Your task to perform on an android device: turn on improve location accuracy Image 0: 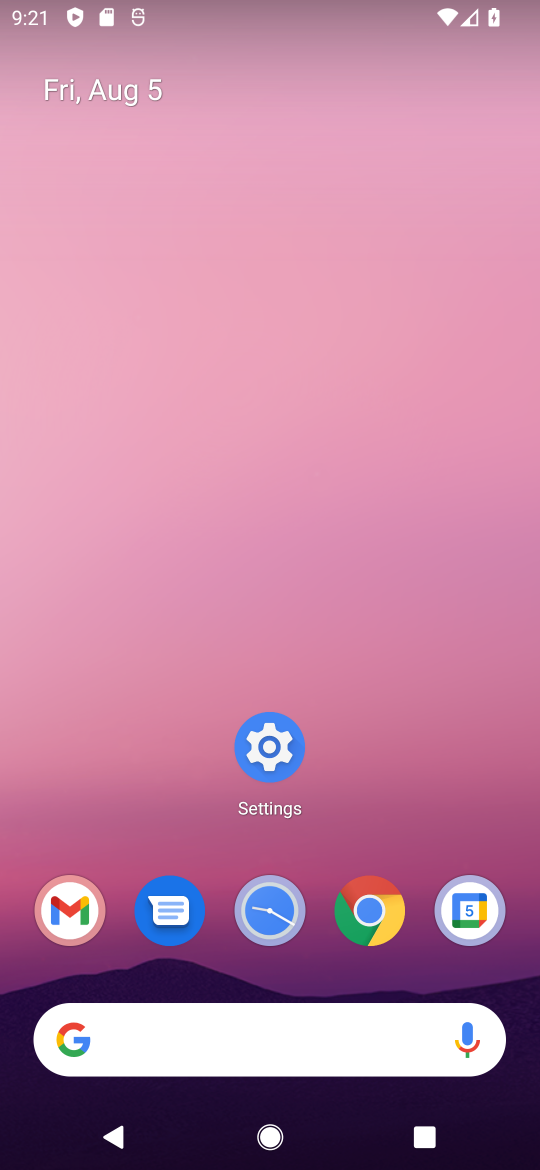
Step 0: click (265, 745)
Your task to perform on an android device: turn on improve location accuracy Image 1: 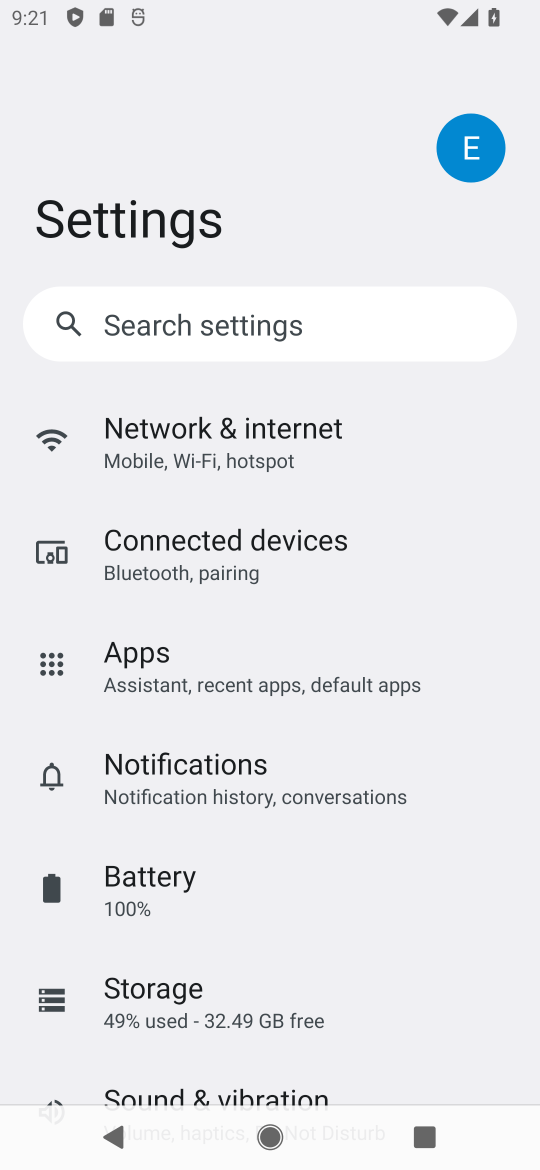
Step 1: drag from (302, 870) to (437, 237)
Your task to perform on an android device: turn on improve location accuracy Image 2: 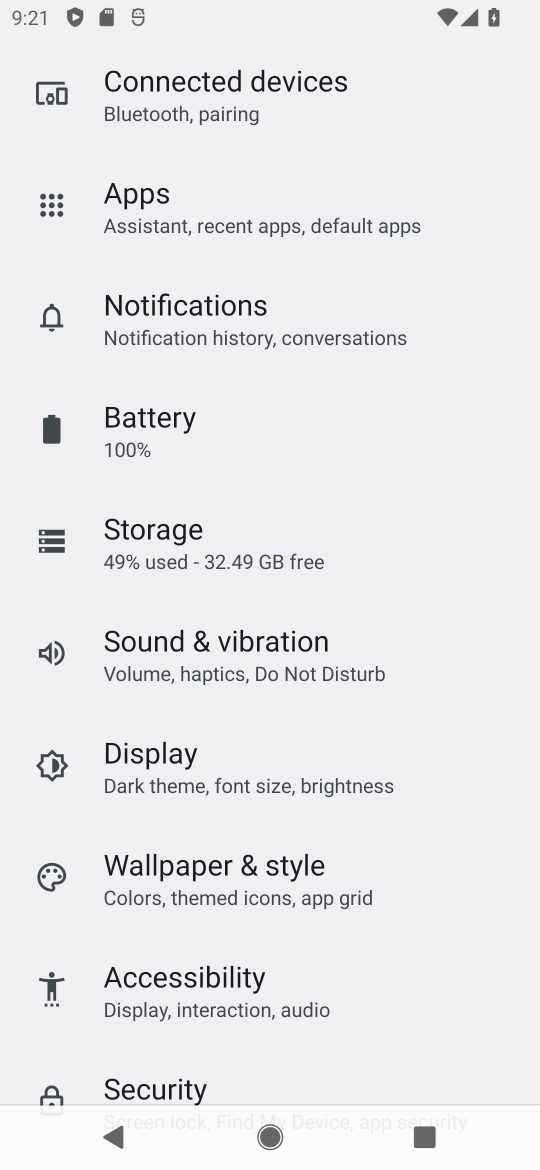
Step 2: drag from (330, 1037) to (400, 169)
Your task to perform on an android device: turn on improve location accuracy Image 3: 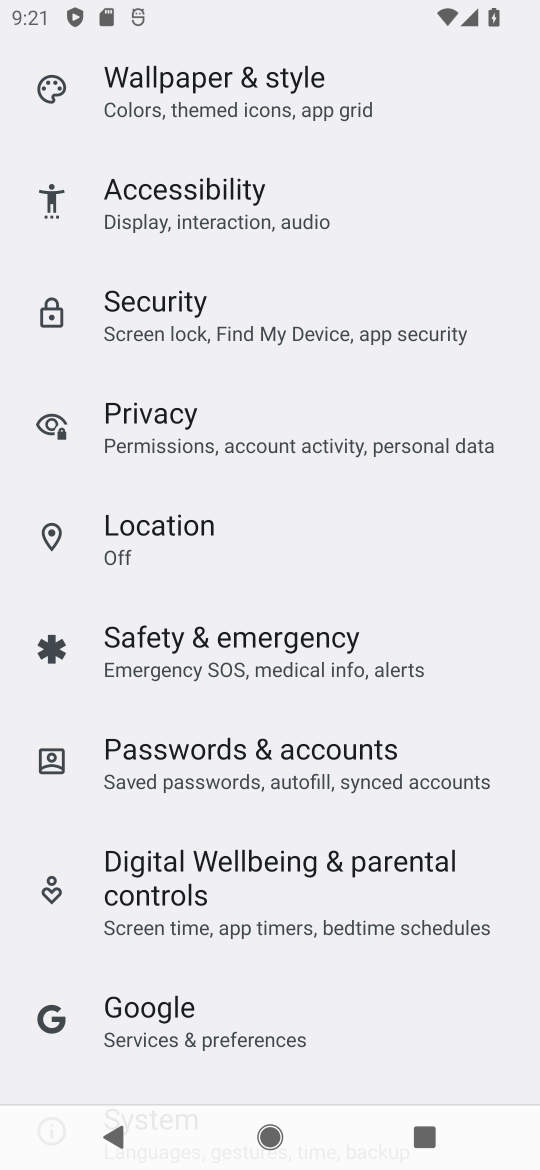
Step 3: click (143, 548)
Your task to perform on an android device: turn on improve location accuracy Image 4: 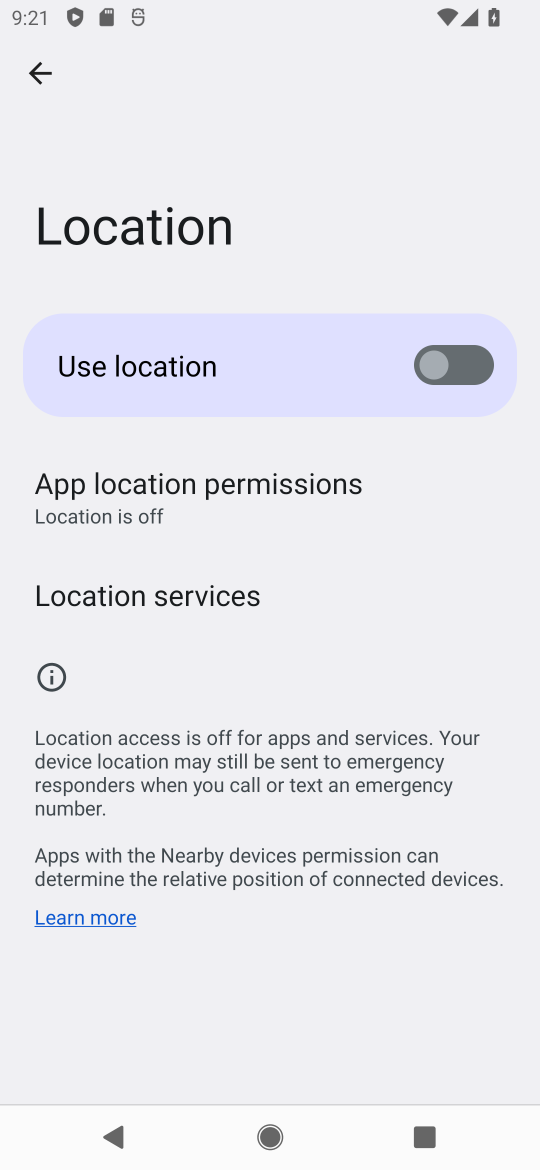
Step 4: click (166, 600)
Your task to perform on an android device: turn on improve location accuracy Image 5: 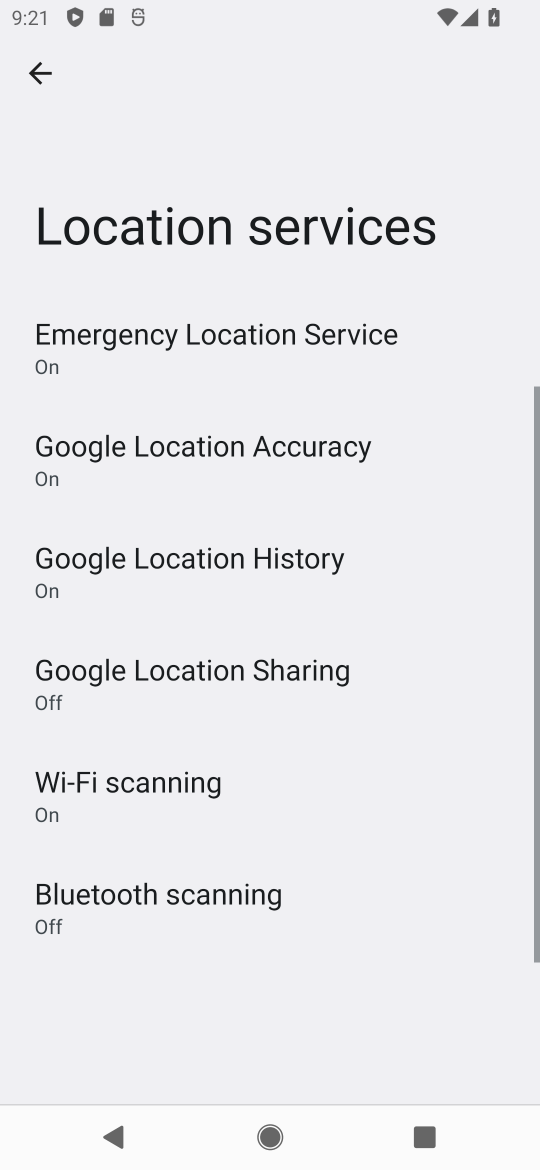
Step 5: click (229, 461)
Your task to perform on an android device: turn on improve location accuracy Image 6: 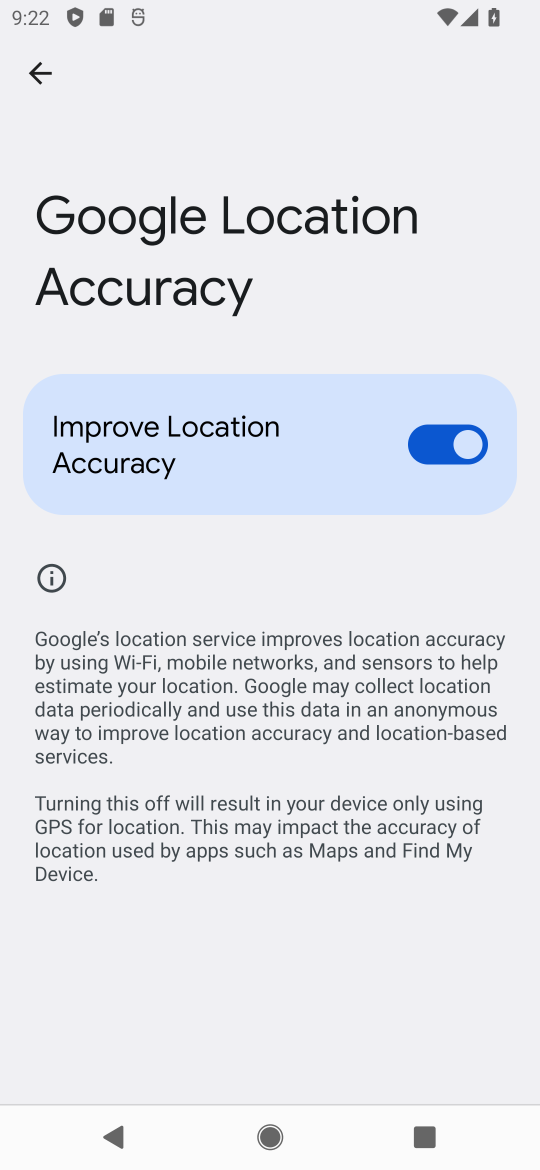
Step 6: task complete